Your task to perform on an android device: turn on notifications settings in the gmail app Image 0: 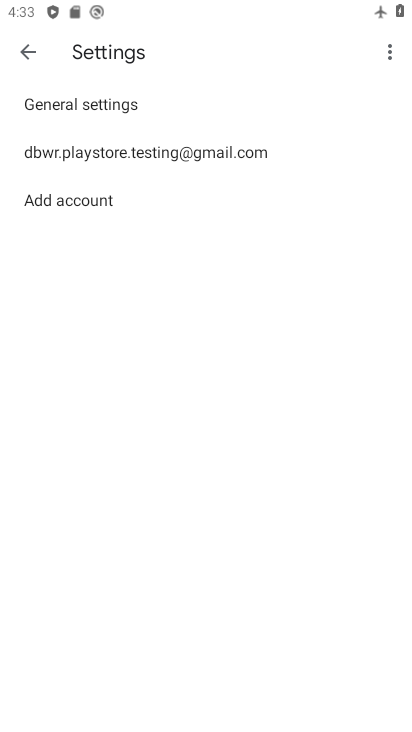
Step 0: press home button
Your task to perform on an android device: turn on notifications settings in the gmail app Image 1: 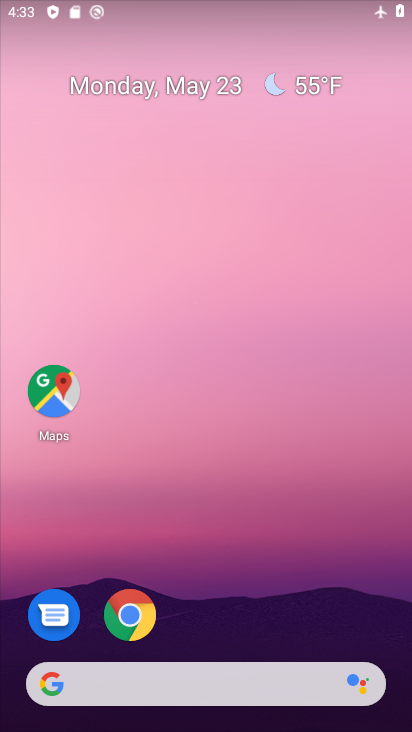
Step 1: drag from (376, 621) to (382, 296)
Your task to perform on an android device: turn on notifications settings in the gmail app Image 2: 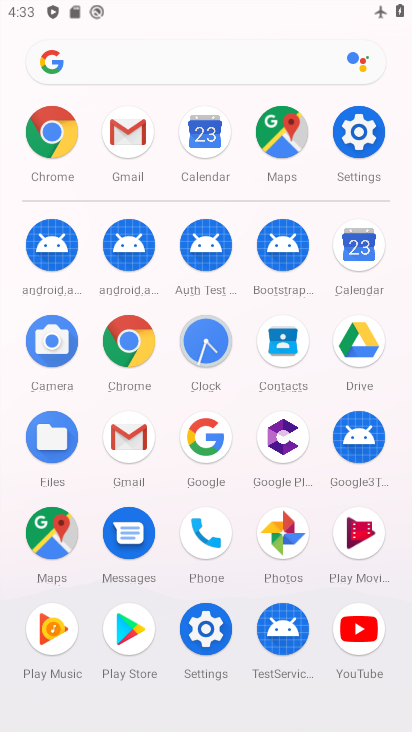
Step 2: click (132, 444)
Your task to perform on an android device: turn on notifications settings in the gmail app Image 3: 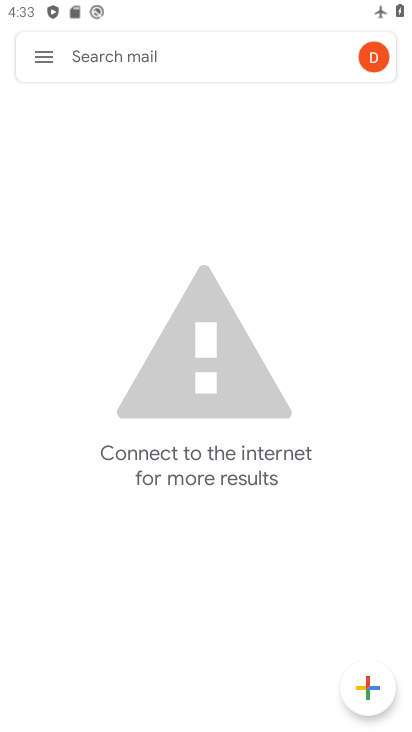
Step 3: click (37, 61)
Your task to perform on an android device: turn on notifications settings in the gmail app Image 4: 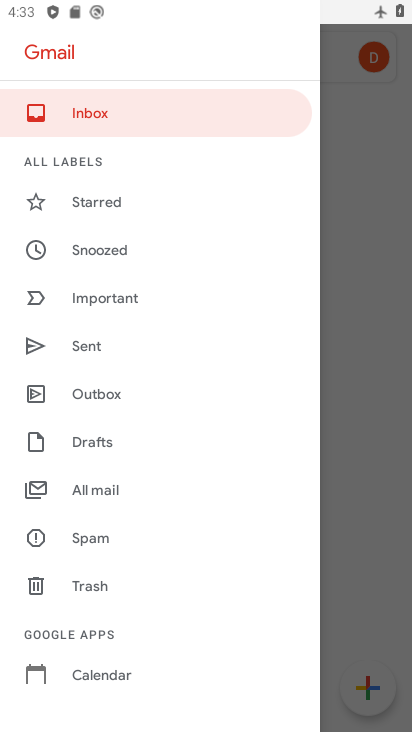
Step 4: drag from (231, 521) to (249, 421)
Your task to perform on an android device: turn on notifications settings in the gmail app Image 5: 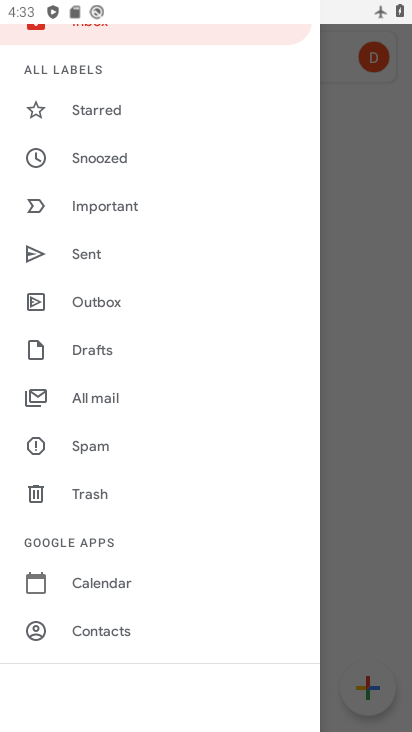
Step 5: drag from (247, 615) to (262, 460)
Your task to perform on an android device: turn on notifications settings in the gmail app Image 6: 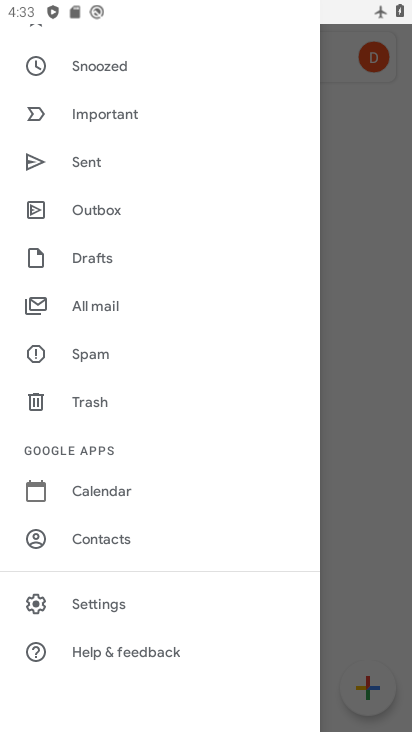
Step 6: drag from (249, 317) to (245, 458)
Your task to perform on an android device: turn on notifications settings in the gmail app Image 7: 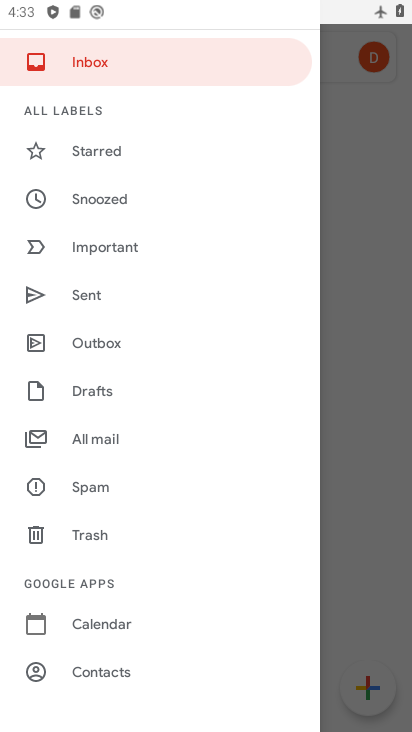
Step 7: drag from (242, 307) to (223, 435)
Your task to perform on an android device: turn on notifications settings in the gmail app Image 8: 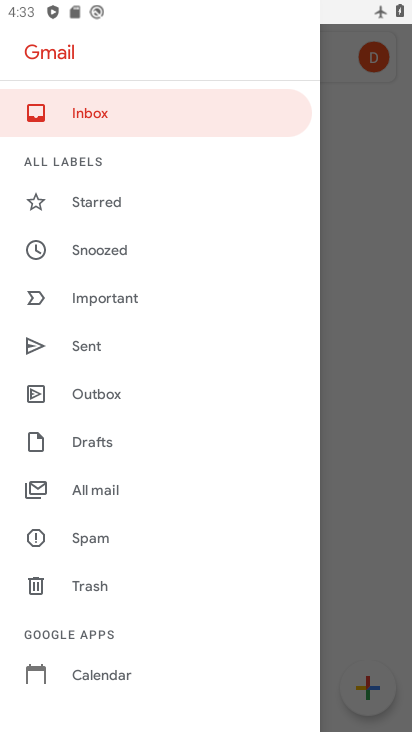
Step 8: drag from (206, 562) to (215, 447)
Your task to perform on an android device: turn on notifications settings in the gmail app Image 9: 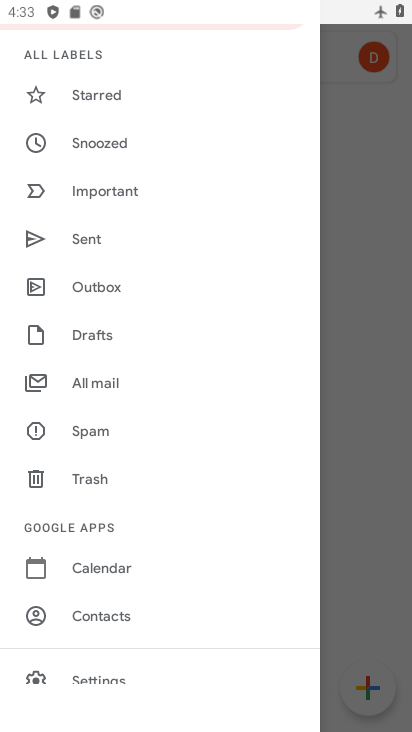
Step 9: drag from (238, 605) to (255, 458)
Your task to perform on an android device: turn on notifications settings in the gmail app Image 10: 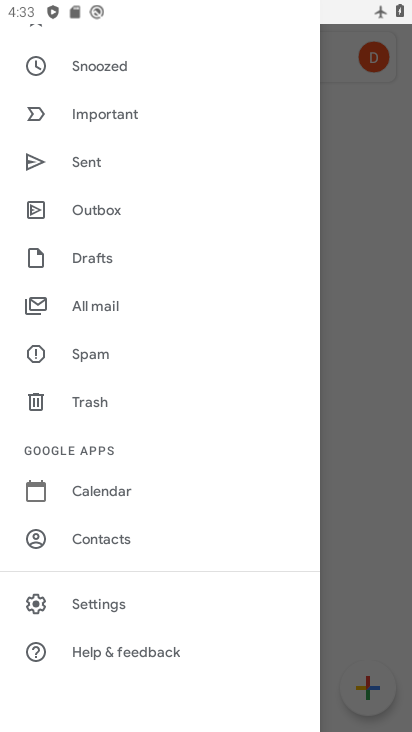
Step 10: click (146, 605)
Your task to perform on an android device: turn on notifications settings in the gmail app Image 11: 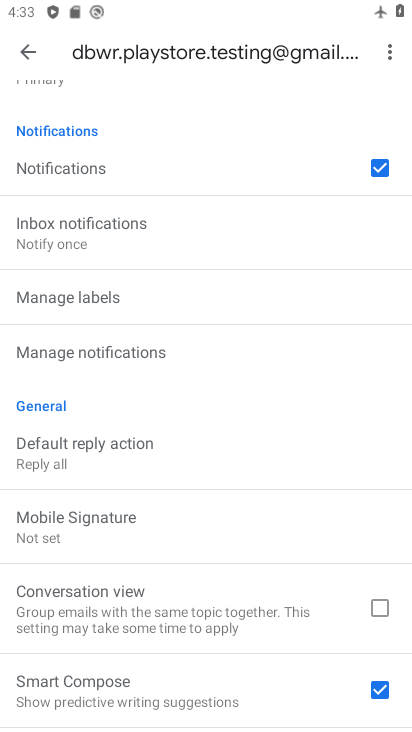
Step 11: drag from (280, 520) to (306, 448)
Your task to perform on an android device: turn on notifications settings in the gmail app Image 12: 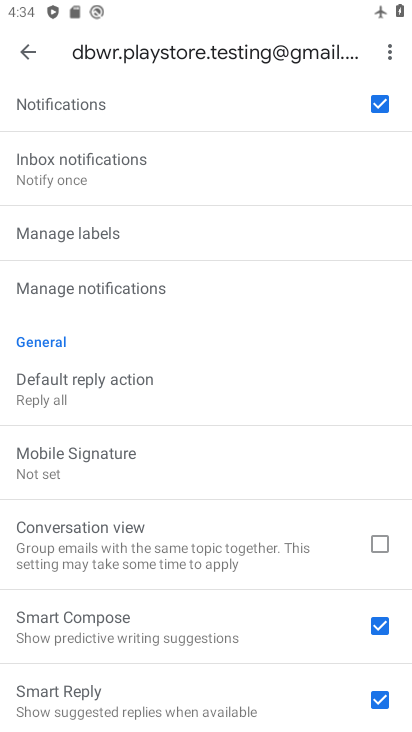
Step 12: drag from (303, 532) to (319, 445)
Your task to perform on an android device: turn on notifications settings in the gmail app Image 13: 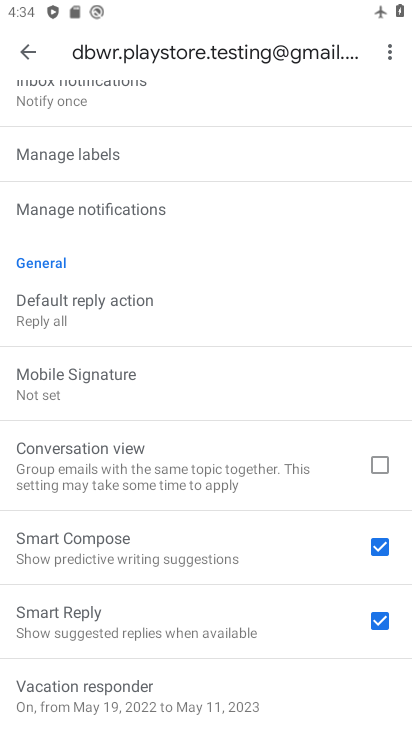
Step 13: drag from (326, 570) to (347, 473)
Your task to perform on an android device: turn on notifications settings in the gmail app Image 14: 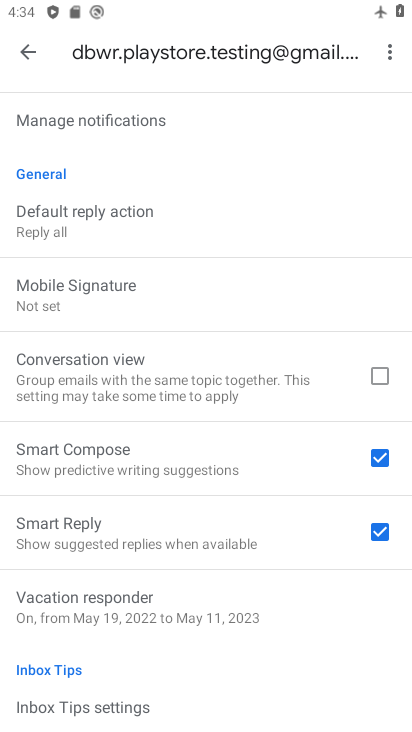
Step 14: drag from (324, 589) to (334, 479)
Your task to perform on an android device: turn on notifications settings in the gmail app Image 15: 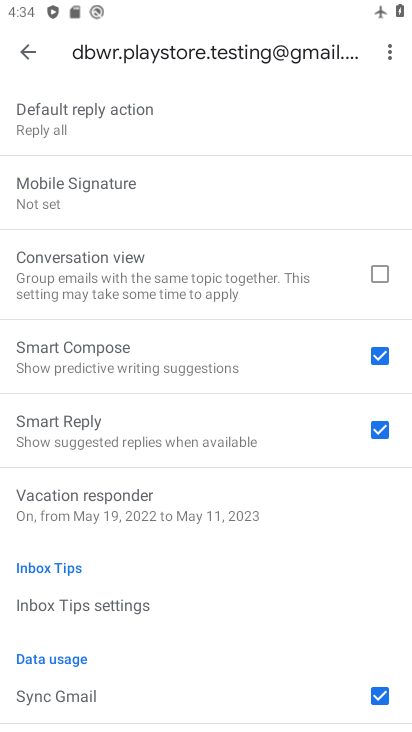
Step 15: drag from (318, 591) to (317, 483)
Your task to perform on an android device: turn on notifications settings in the gmail app Image 16: 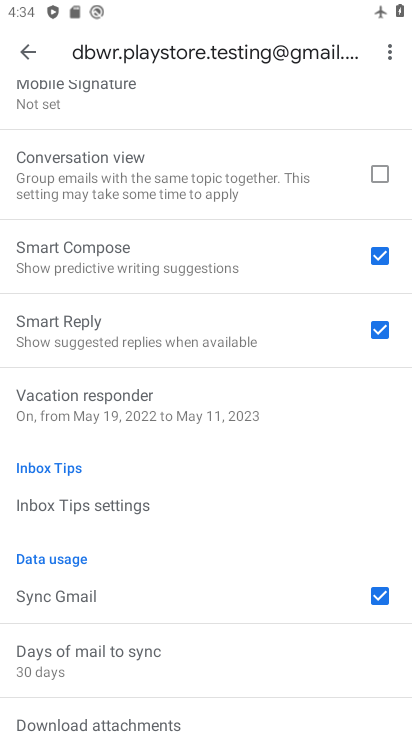
Step 16: drag from (304, 621) to (306, 409)
Your task to perform on an android device: turn on notifications settings in the gmail app Image 17: 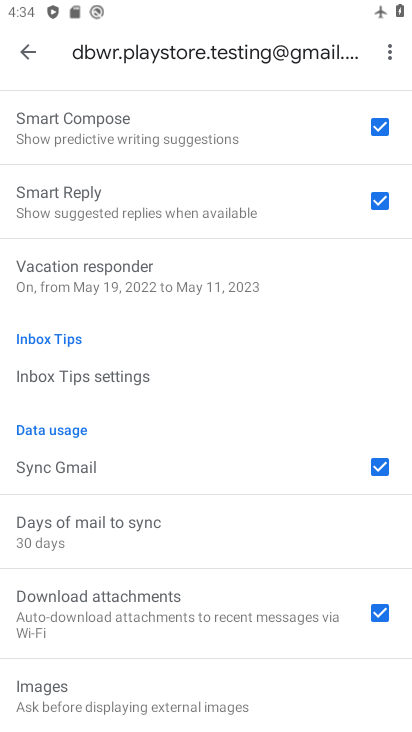
Step 17: drag from (307, 353) to (298, 463)
Your task to perform on an android device: turn on notifications settings in the gmail app Image 18: 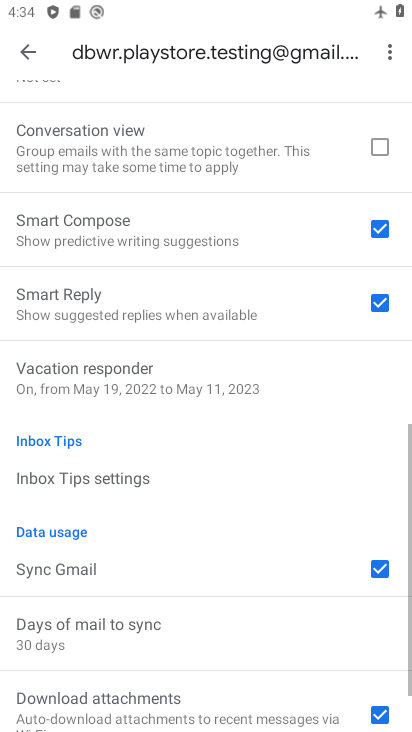
Step 18: drag from (308, 371) to (305, 463)
Your task to perform on an android device: turn on notifications settings in the gmail app Image 19: 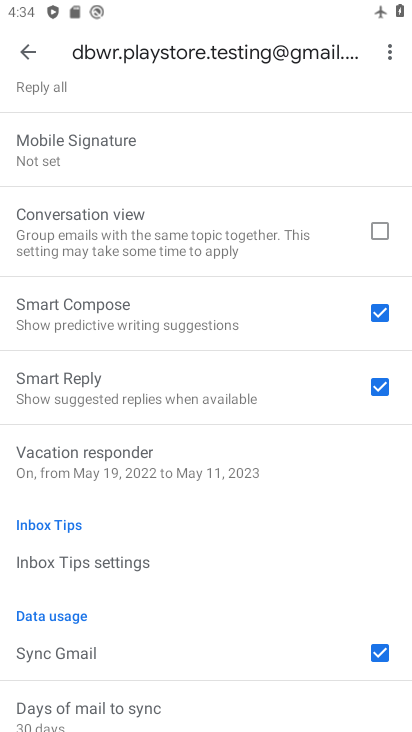
Step 19: drag from (306, 346) to (313, 480)
Your task to perform on an android device: turn on notifications settings in the gmail app Image 20: 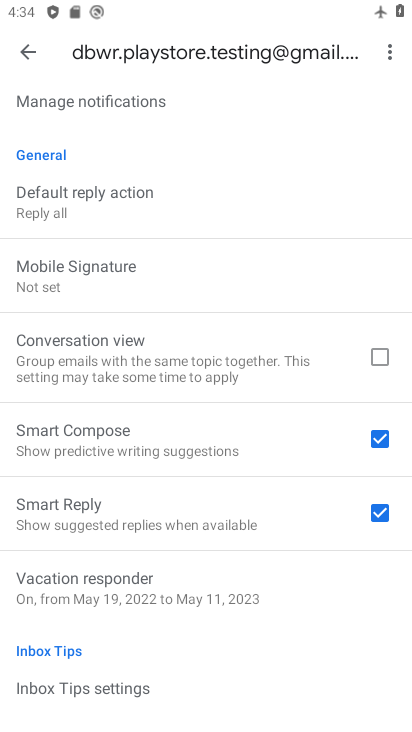
Step 20: drag from (292, 291) to (281, 428)
Your task to perform on an android device: turn on notifications settings in the gmail app Image 21: 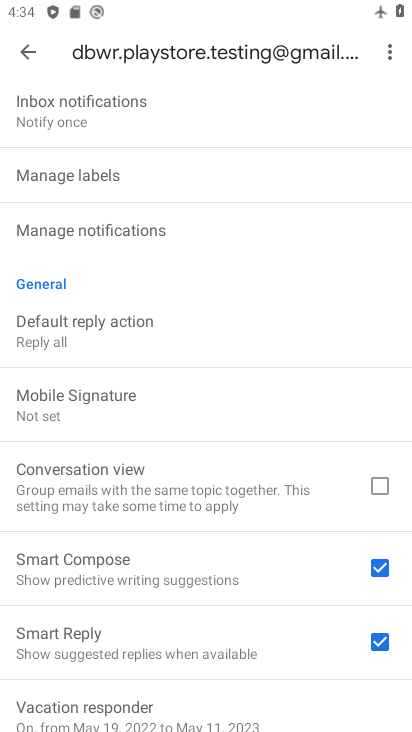
Step 21: drag from (275, 256) to (268, 373)
Your task to perform on an android device: turn on notifications settings in the gmail app Image 22: 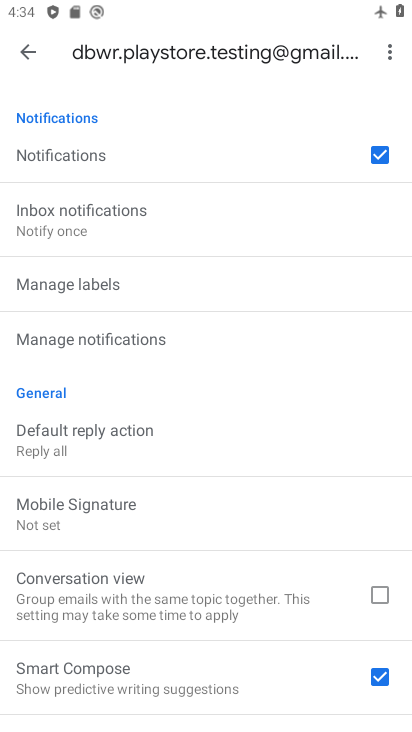
Step 22: click (212, 361)
Your task to perform on an android device: turn on notifications settings in the gmail app Image 23: 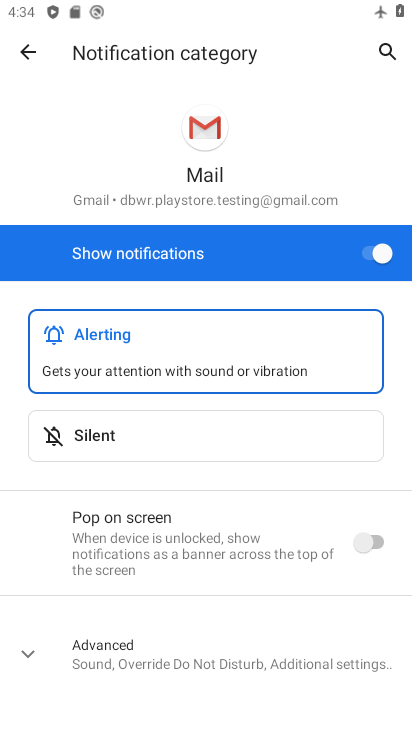
Step 23: task complete